Your task to perform on an android device: Search for "acer predator" on target, select the first entry, add it to the cart, then select checkout. Image 0: 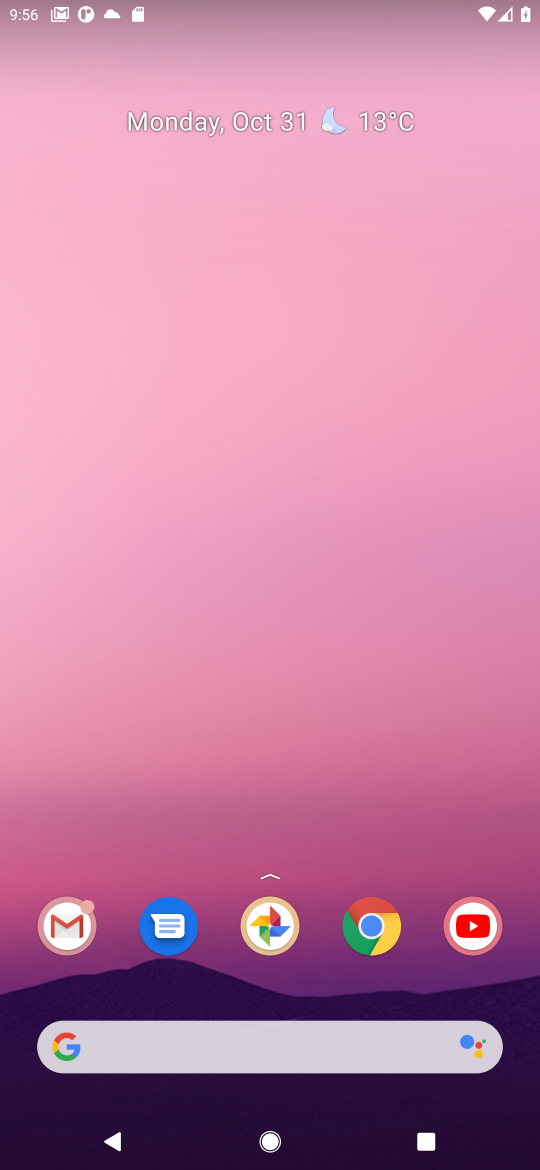
Step 0: click (373, 924)
Your task to perform on an android device: Search for "acer predator" on target, select the first entry, add it to the cart, then select checkout. Image 1: 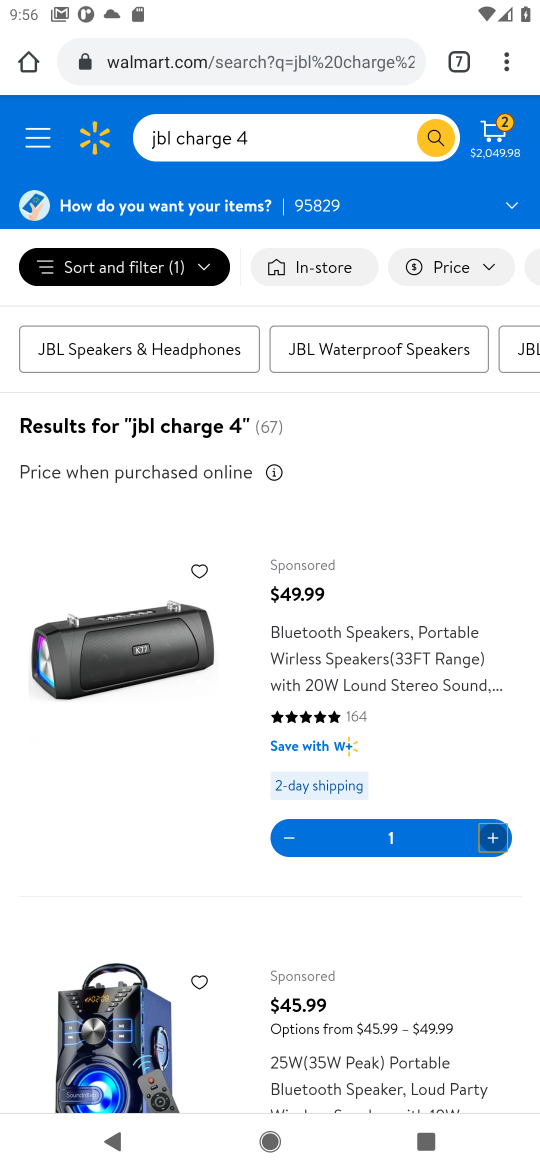
Step 1: click (461, 64)
Your task to perform on an android device: Search for "acer predator" on target, select the first entry, add it to the cart, then select checkout. Image 2: 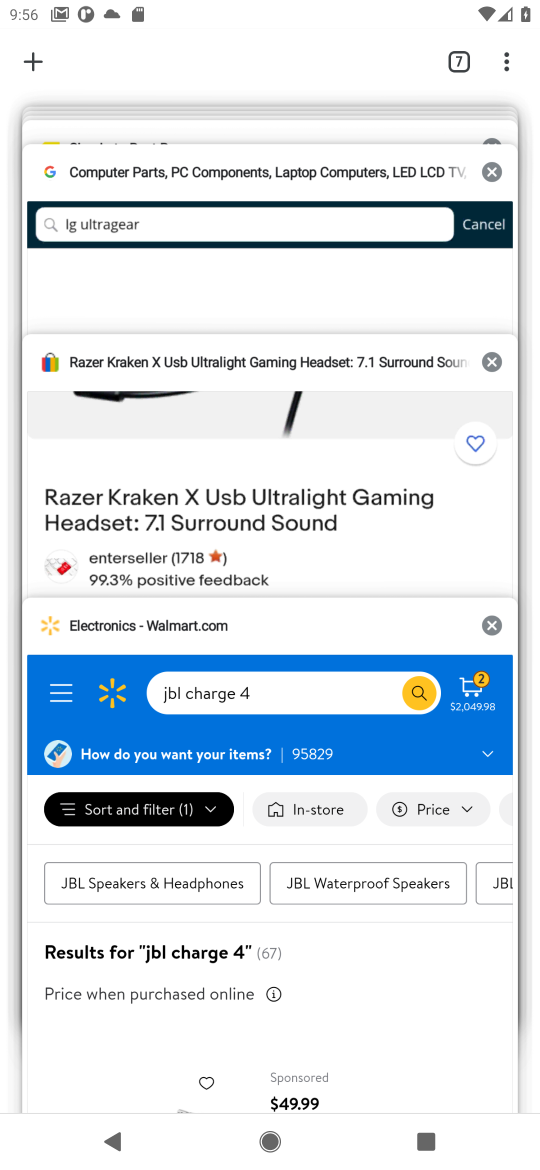
Step 2: drag from (323, 247) to (266, 496)
Your task to perform on an android device: Search for "acer predator" on target, select the first entry, add it to the cart, then select checkout. Image 3: 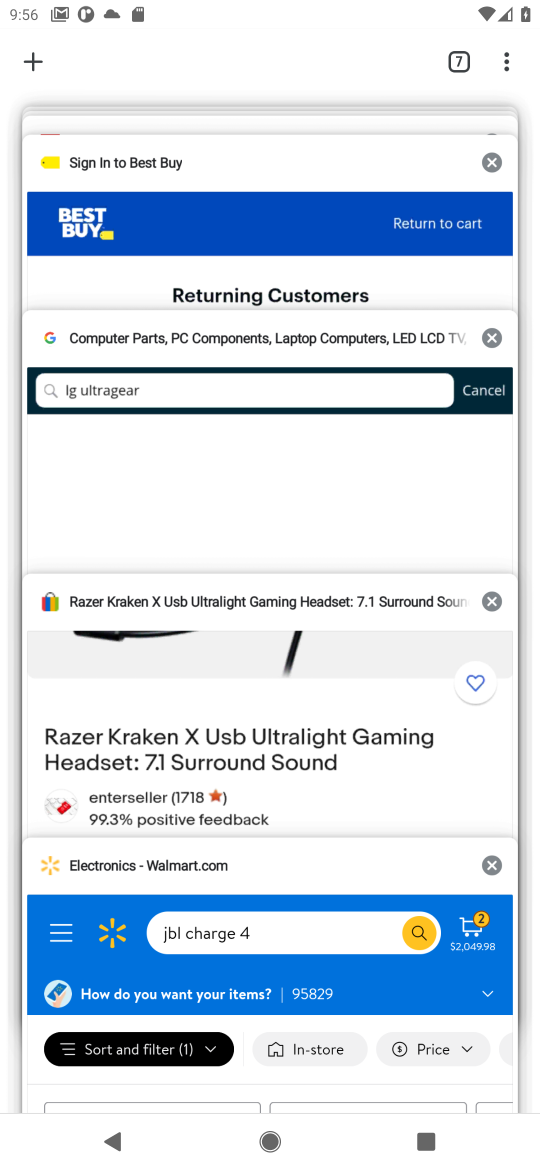
Step 3: click (239, 249)
Your task to perform on an android device: Search for "acer predator" on target, select the first entry, add it to the cart, then select checkout. Image 4: 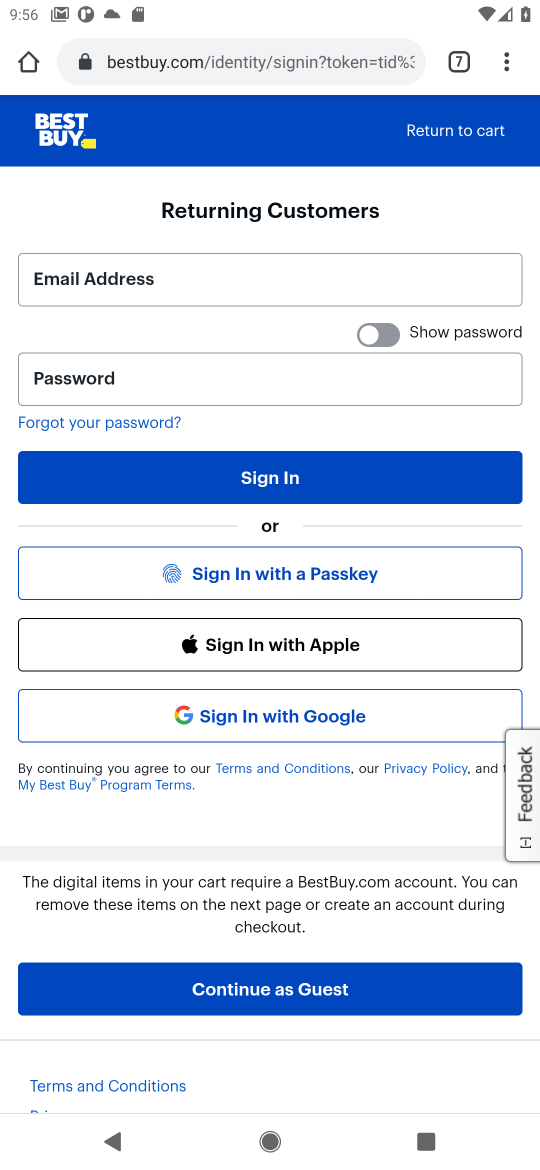
Step 4: click (473, 135)
Your task to perform on an android device: Search for "acer predator" on target, select the first entry, add it to the cart, then select checkout. Image 5: 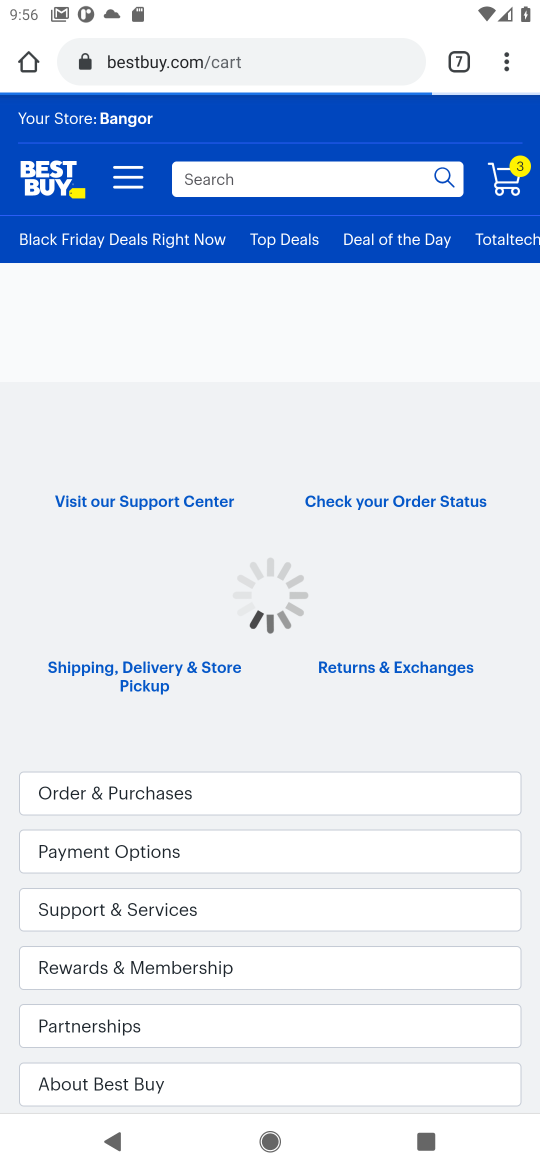
Step 5: click (282, 181)
Your task to perform on an android device: Search for "acer predator" on target, select the first entry, add it to the cart, then select checkout. Image 6: 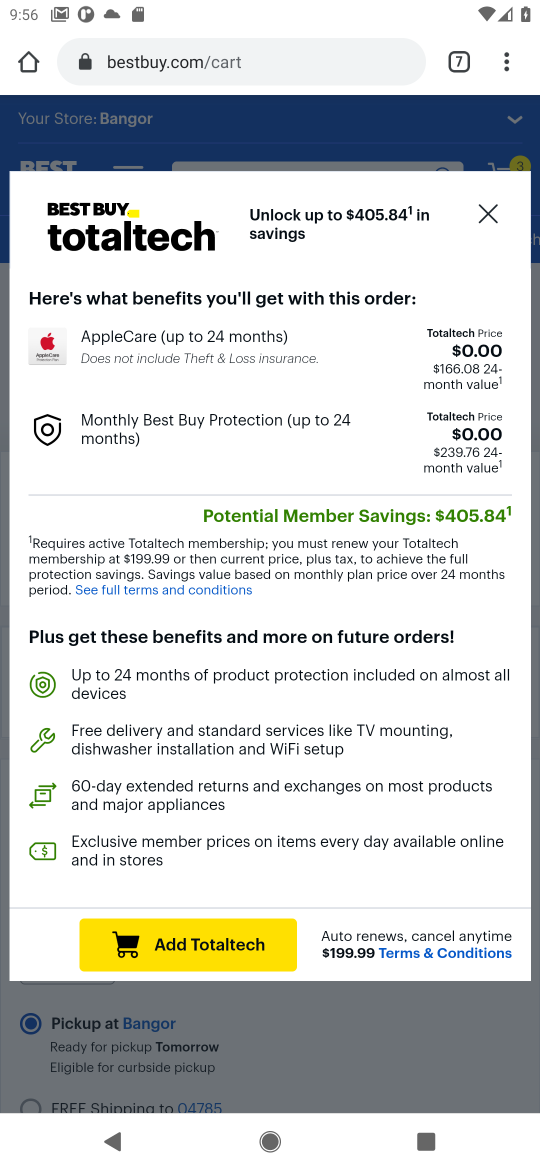
Step 6: type "acer predator"
Your task to perform on an android device: Search for "acer predator" on target, select the first entry, add it to the cart, then select checkout. Image 7: 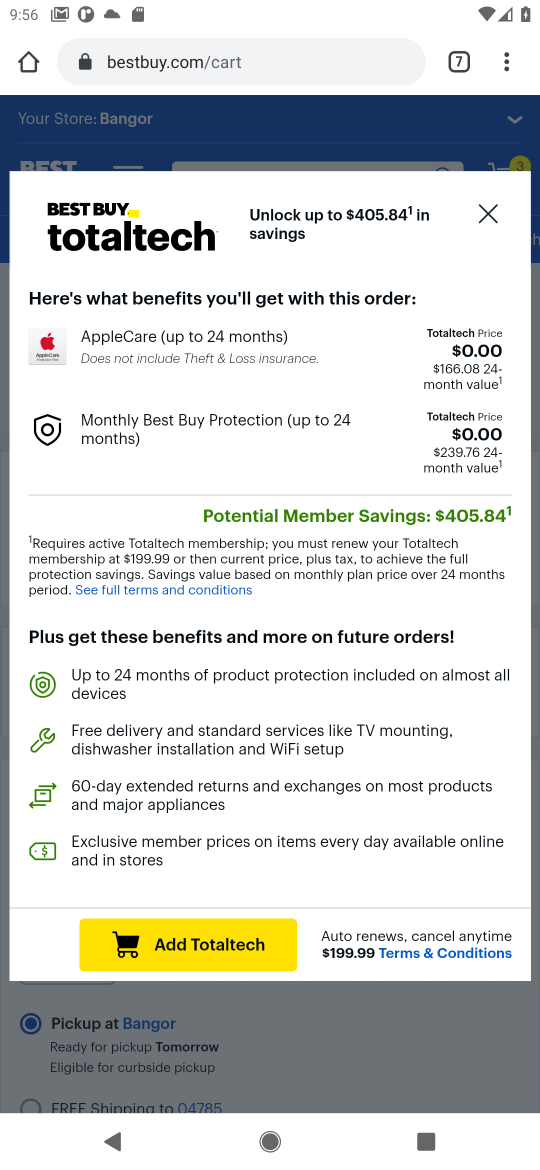
Step 7: click (488, 212)
Your task to perform on an android device: Search for "acer predator" on target, select the first entry, add it to the cart, then select checkout. Image 8: 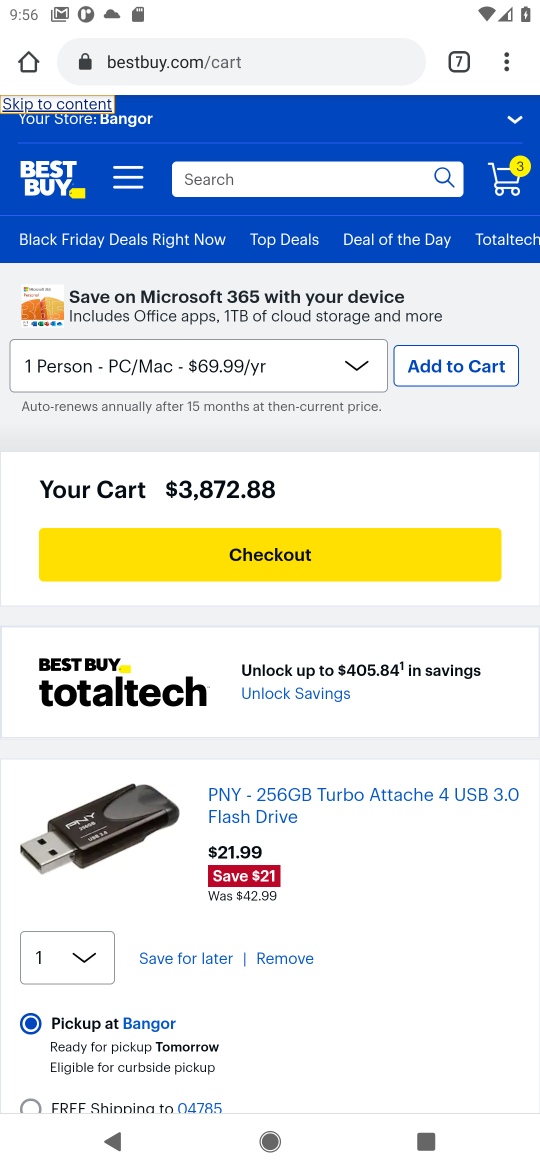
Step 8: click (335, 188)
Your task to perform on an android device: Search for "acer predator" on target, select the first entry, add it to the cart, then select checkout. Image 9: 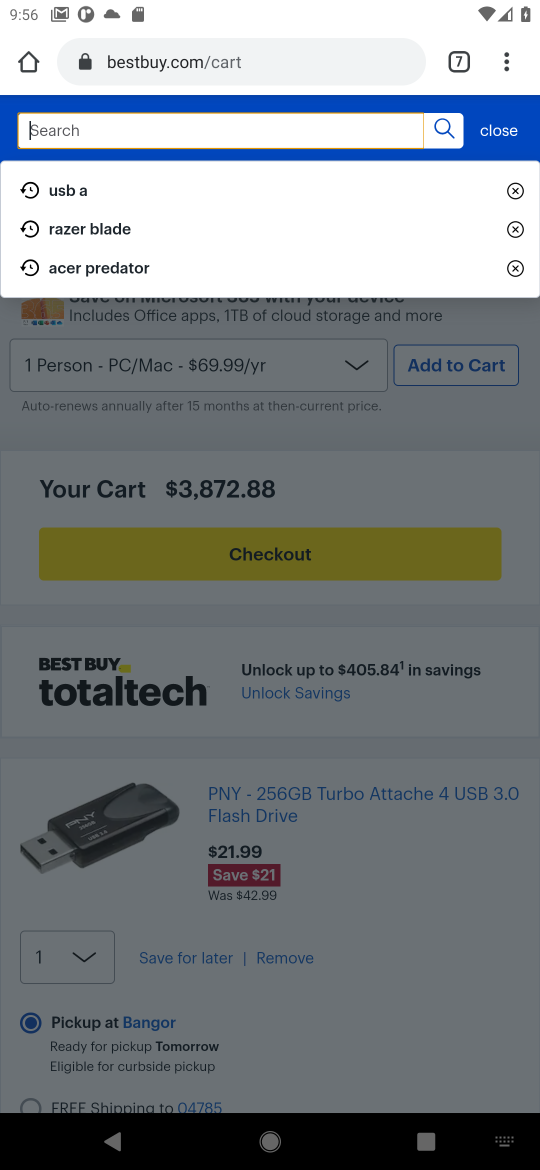
Step 9: click (119, 267)
Your task to perform on an android device: Search for "acer predator" on target, select the first entry, add it to the cart, then select checkout. Image 10: 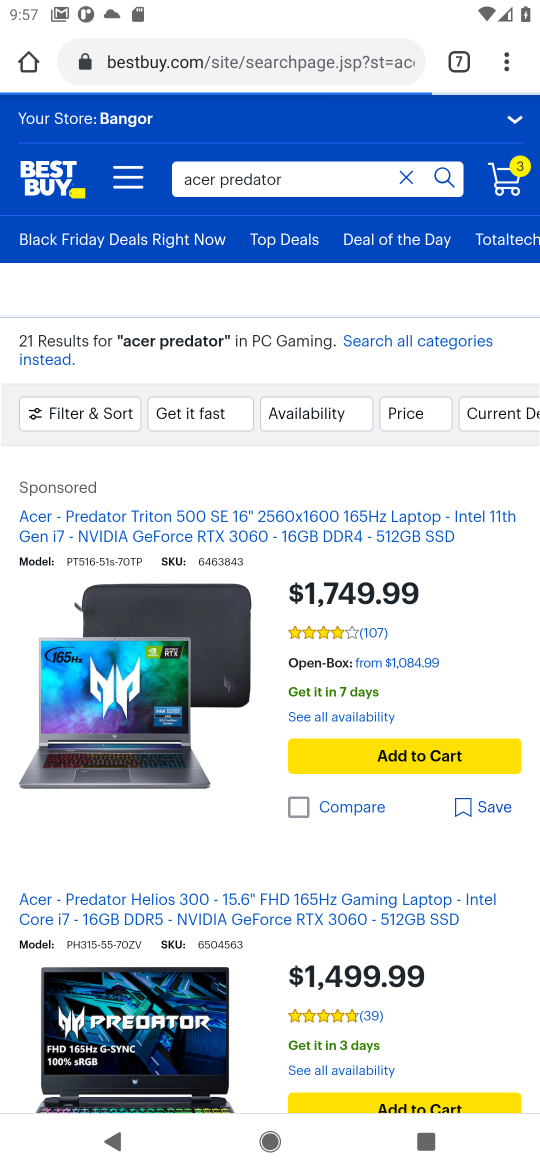
Step 10: click (377, 791)
Your task to perform on an android device: Search for "acer predator" on target, select the first entry, add it to the cart, then select checkout. Image 11: 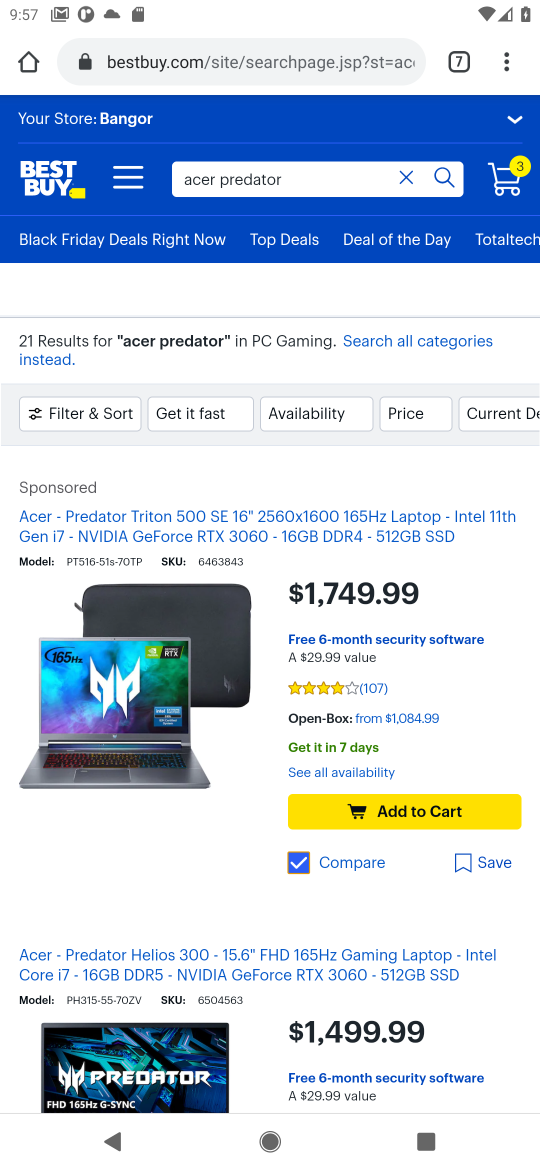
Step 11: click (402, 753)
Your task to perform on an android device: Search for "acer predator" on target, select the first entry, add it to the cart, then select checkout. Image 12: 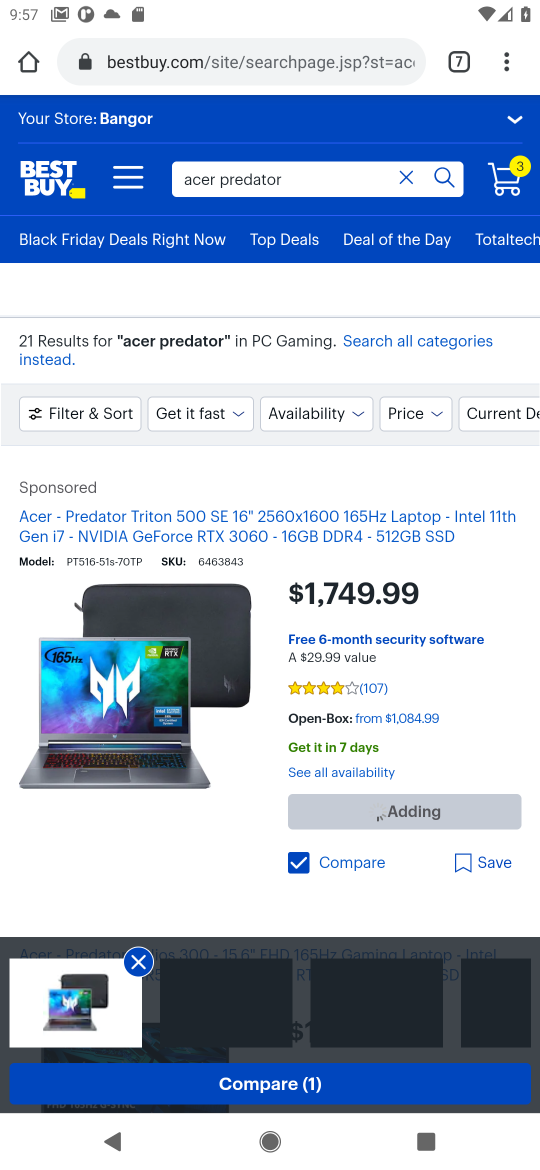
Step 12: click (143, 958)
Your task to perform on an android device: Search for "acer predator" on target, select the first entry, add it to the cart, then select checkout. Image 13: 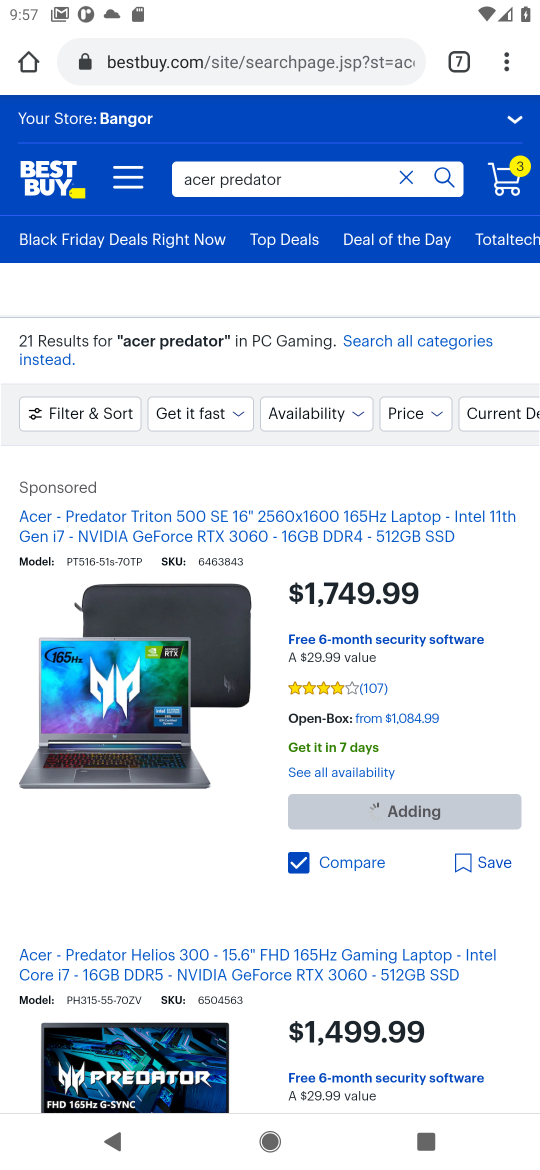
Step 13: click (300, 860)
Your task to perform on an android device: Search for "acer predator" on target, select the first entry, add it to the cart, then select checkout. Image 14: 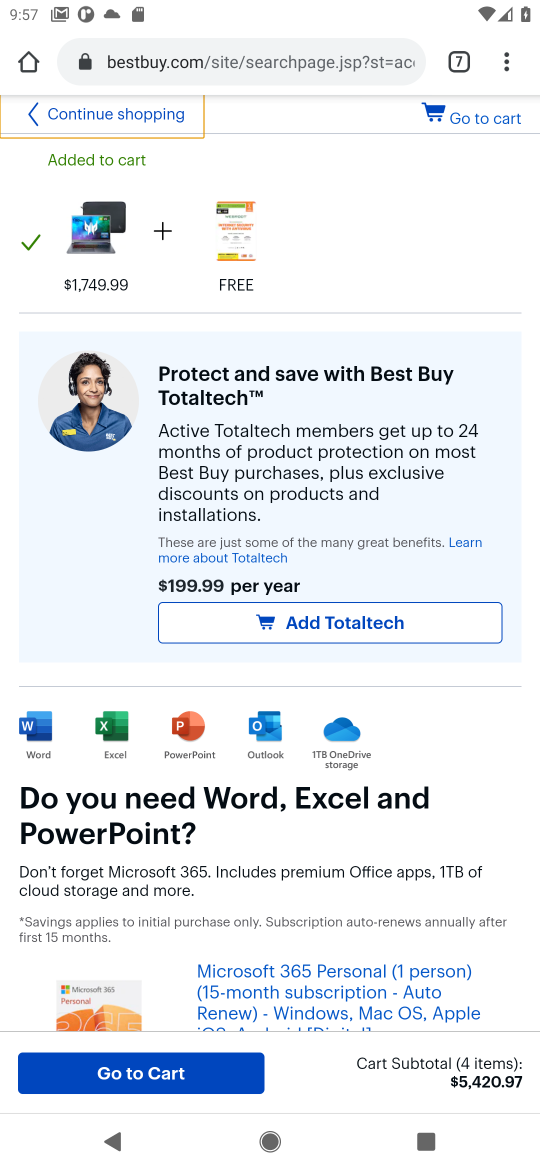
Step 14: click (138, 1072)
Your task to perform on an android device: Search for "acer predator" on target, select the first entry, add it to the cart, then select checkout. Image 15: 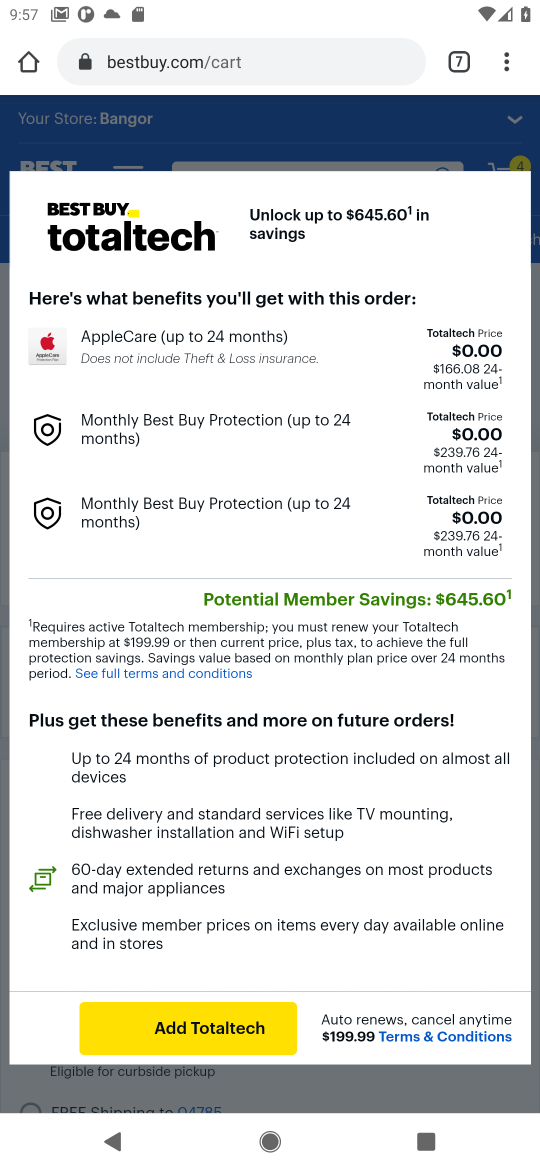
Step 15: click (282, 552)
Your task to perform on an android device: Search for "acer predator" on target, select the first entry, add it to the cart, then select checkout. Image 16: 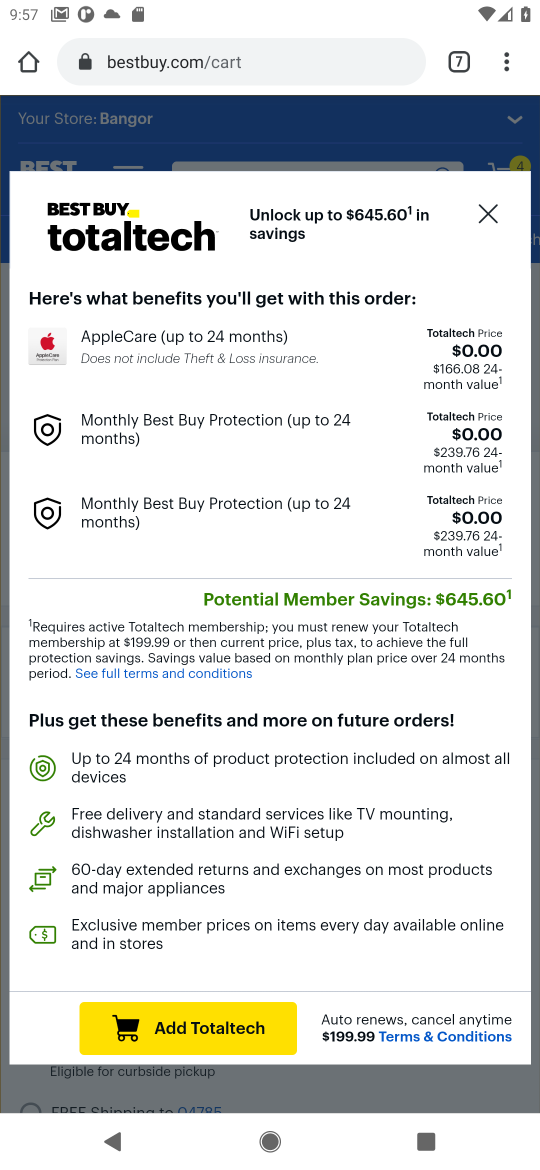
Step 16: click (493, 207)
Your task to perform on an android device: Search for "acer predator" on target, select the first entry, add it to the cart, then select checkout. Image 17: 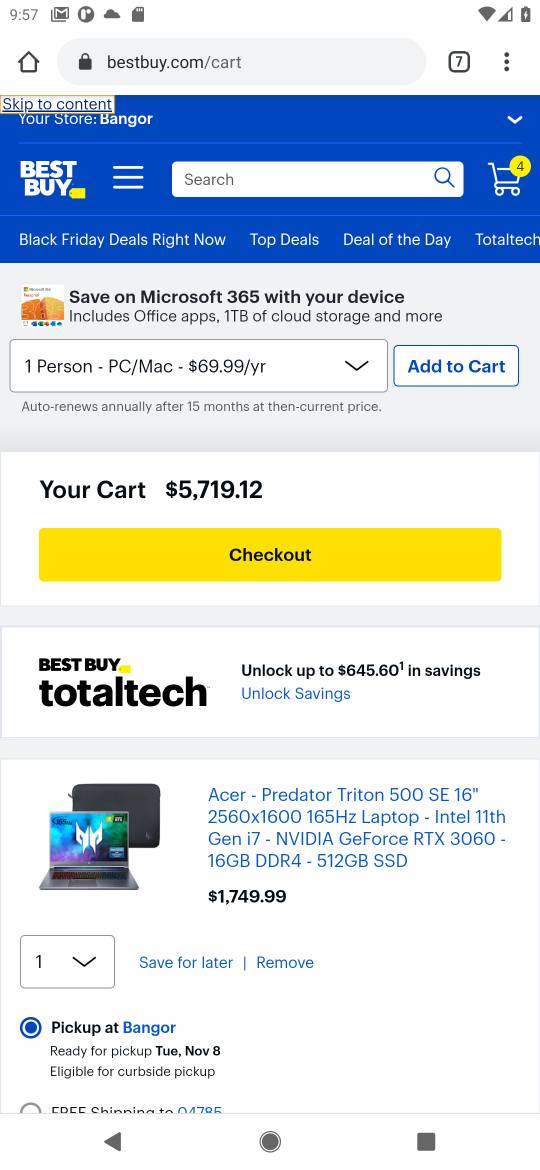
Step 17: click (200, 550)
Your task to perform on an android device: Search for "acer predator" on target, select the first entry, add it to the cart, then select checkout. Image 18: 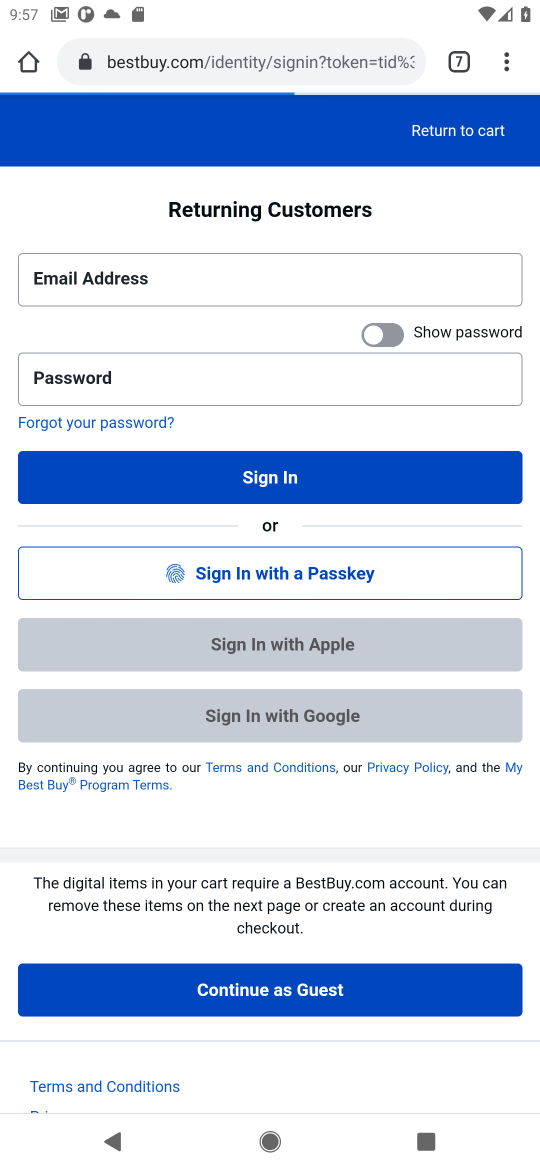
Step 18: task complete